Your task to perform on an android device: toggle improve location accuracy Image 0: 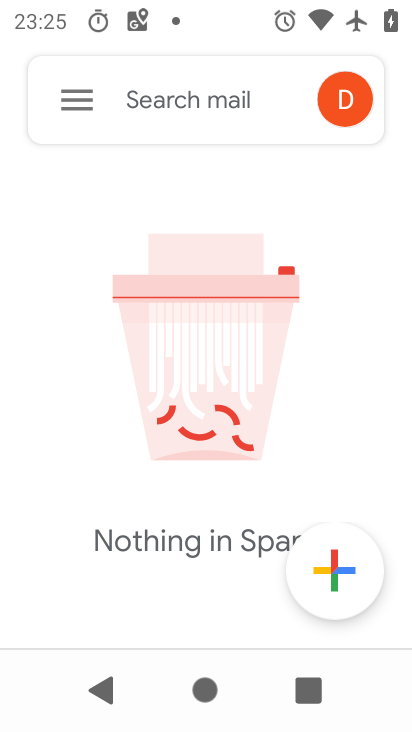
Step 0: press home button
Your task to perform on an android device: toggle improve location accuracy Image 1: 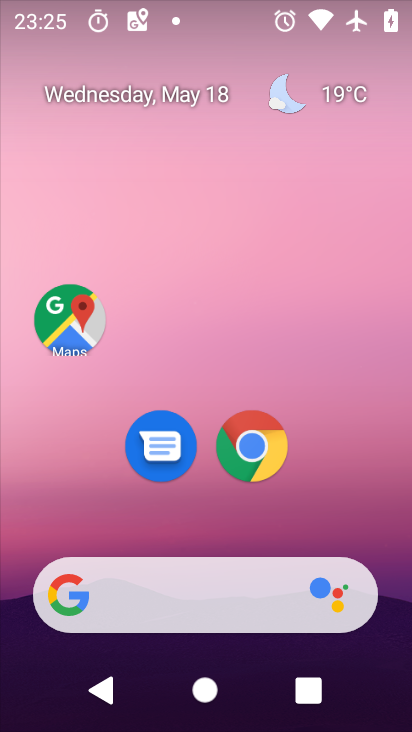
Step 1: drag from (128, 605) to (246, 133)
Your task to perform on an android device: toggle improve location accuracy Image 2: 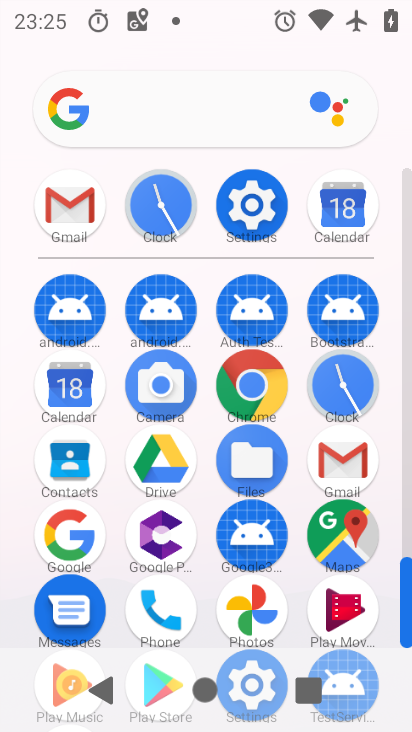
Step 2: click (258, 204)
Your task to perform on an android device: toggle improve location accuracy Image 3: 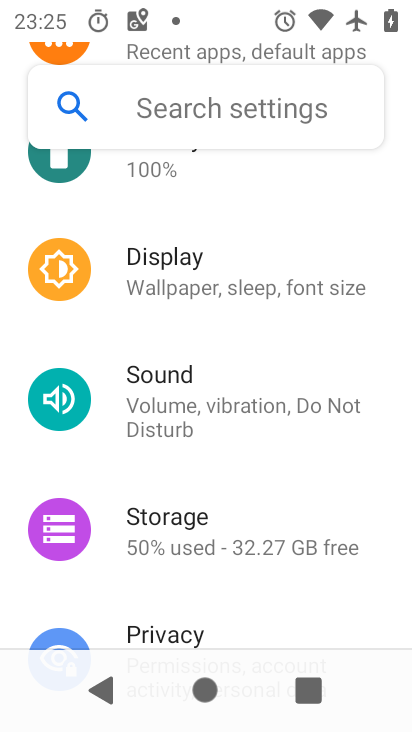
Step 3: drag from (283, 234) to (248, 480)
Your task to perform on an android device: toggle improve location accuracy Image 4: 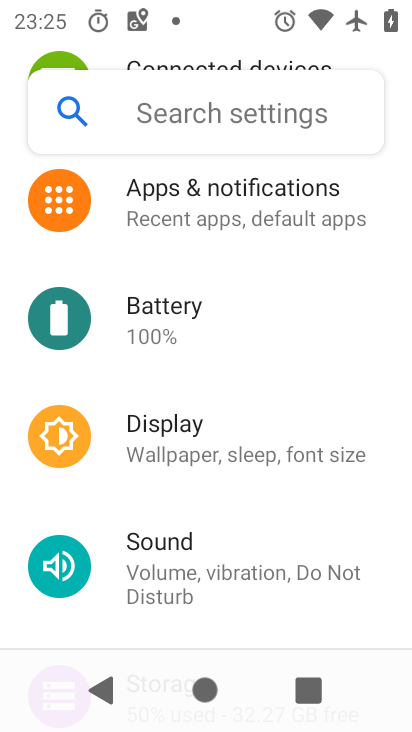
Step 4: drag from (221, 540) to (320, 204)
Your task to perform on an android device: toggle improve location accuracy Image 5: 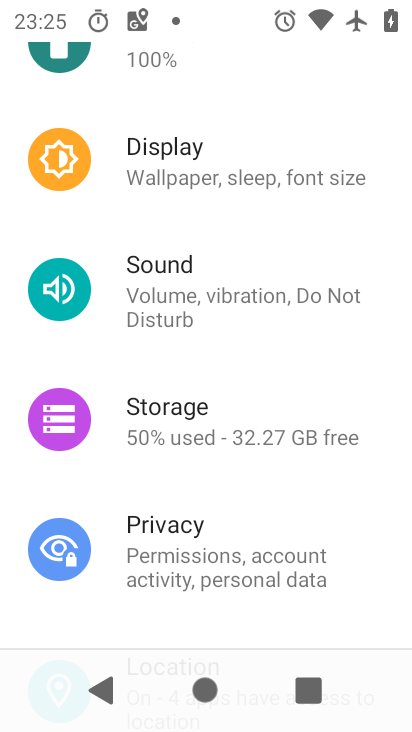
Step 5: drag from (253, 526) to (335, 168)
Your task to perform on an android device: toggle improve location accuracy Image 6: 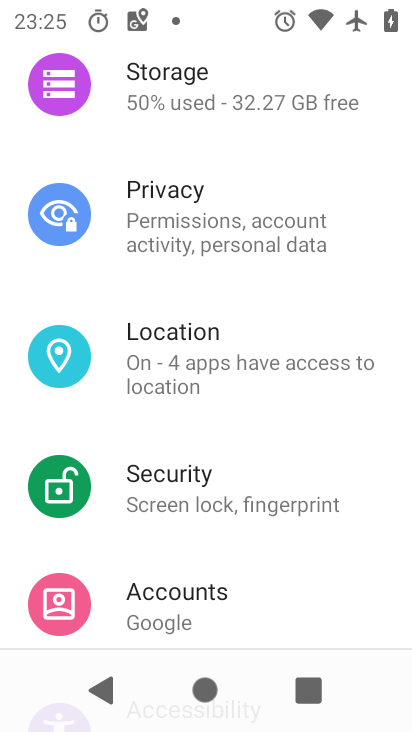
Step 6: click (174, 381)
Your task to perform on an android device: toggle improve location accuracy Image 7: 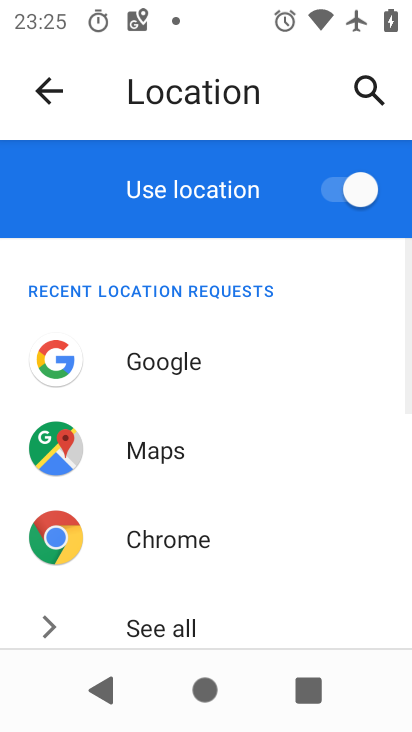
Step 7: drag from (247, 584) to (337, 121)
Your task to perform on an android device: toggle improve location accuracy Image 8: 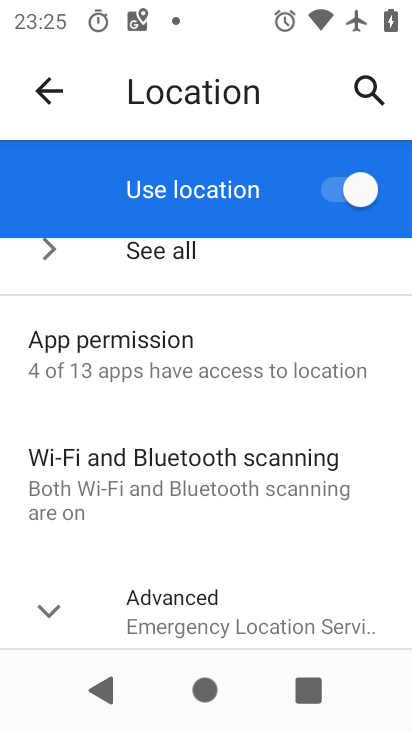
Step 8: click (191, 603)
Your task to perform on an android device: toggle improve location accuracy Image 9: 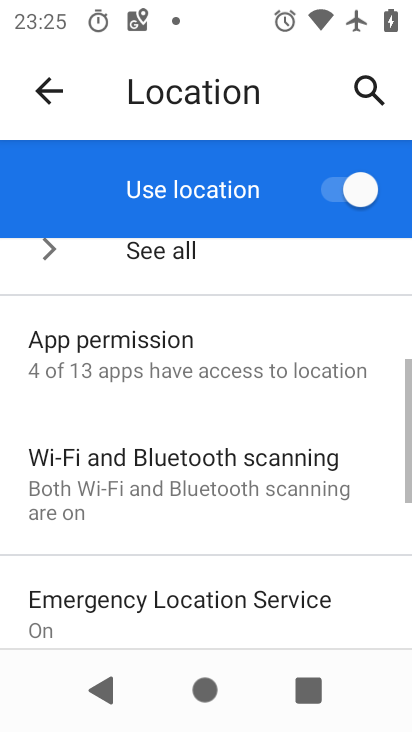
Step 9: drag from (218, 601) to (286, 191)
Your task to perform on an android device: toggle improve location accuracy Image 10: 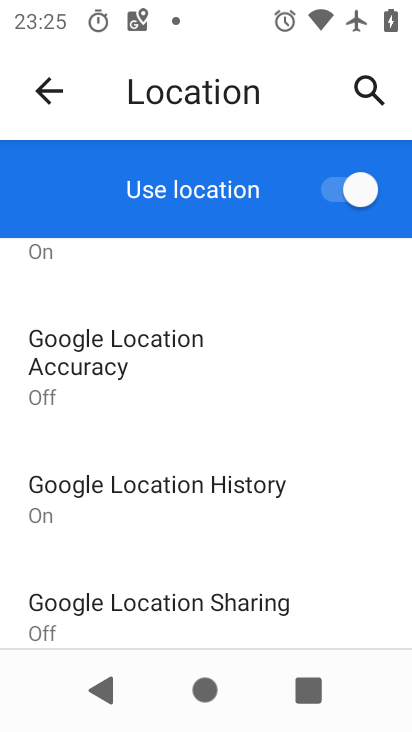
Step 10: click (78, 371)
Your task to perform on an android device: toggle improve location accuracy Image 11: 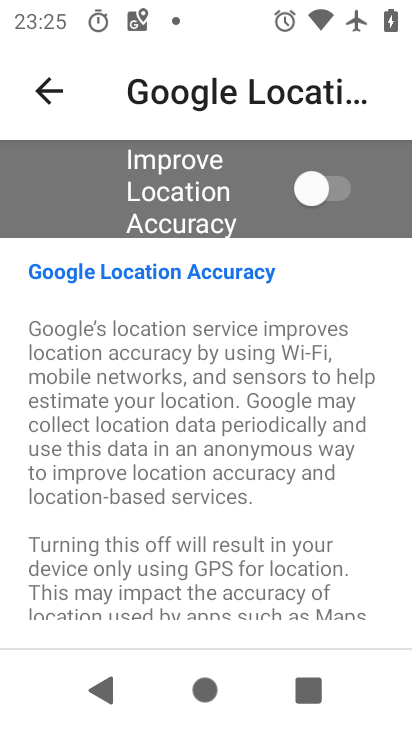
Step 11: click (331, 182)
Your task to perform on an android device: toggle improve location accuracy Image 12: 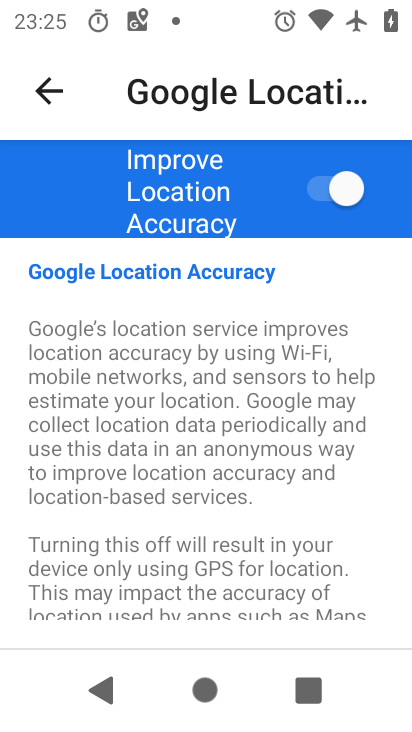
Step 12: task complete